Your task to perform on an android device: Clear the cart on ebay. Add "panasonic triple a" to the cart on ebay, then select checkout. Image 0: 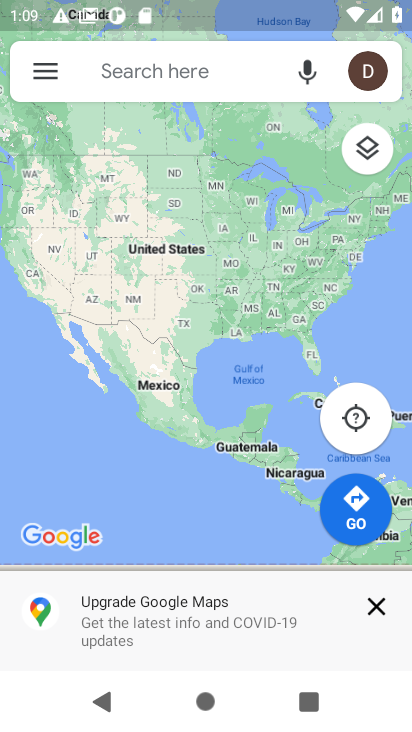
Step 0: press home button
Your task to perform on an android device: Clear the cart on ebay. Add "panasonic triple a" to the cart on ebay, then select checkout. Image 1: 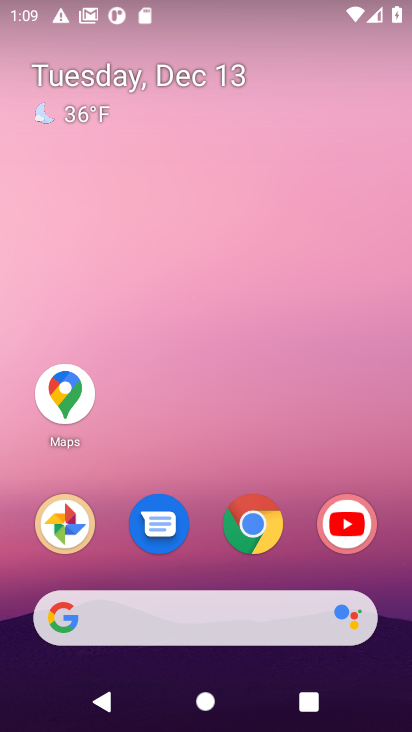
Step 1: click (257, 529)
Your task to perform on an android device: Clear the cart on ebay. Add "panasonic triple a" to the cart on ebay, then select checkout. Image 2: 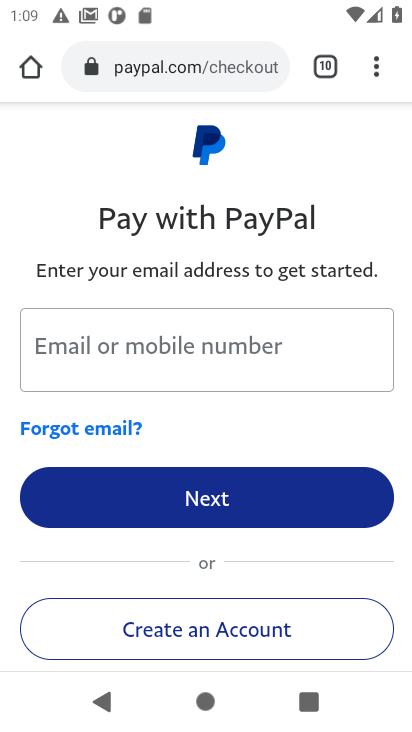
Step 2: click (160, 68)
Your task to perform on an android device: Clear the cart on ebay. Add "panasonic triple a" to the cart on ebay, then select checkout. Image 3: 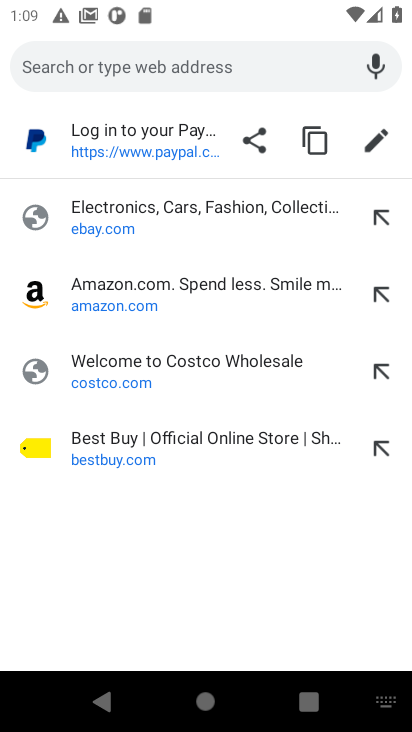
Step 3: click (88, 224)
Your task to perform on an android device: Clear the cart on ebay. Add "panasonic triple a" to the cart on ebay, then select checkout. Image 4: 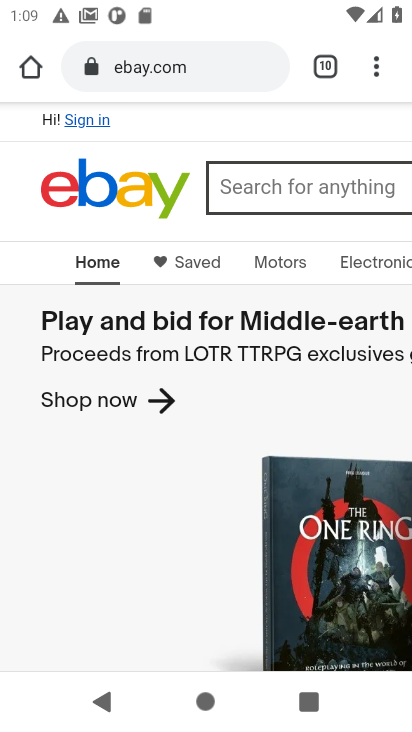
Step 4: drag from (338, 148) to (15, 171)
Your task to perform on an android device: Clear the cart on ebay. Add "panasonic triple a" to the cart on ebay, then select checkout. Image 5: 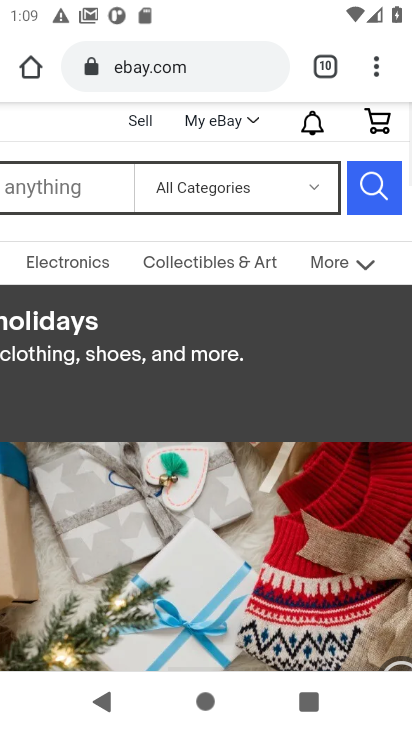
Step 5: click (372, 129)
Your task to perform on an android device: Clear the cart on ebay. Add "panasonic triple a" to the cart on ebay, then select checkout. Image 6: 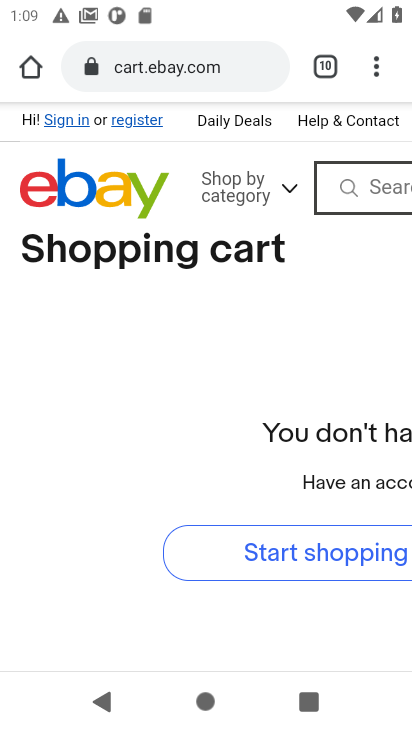
Step 6: click (382, 191)
Your task to perform on an android device: Clear the cart on ebay. Add "panasonic triple a" to the cart on ebay, then select checkout. Image 7: 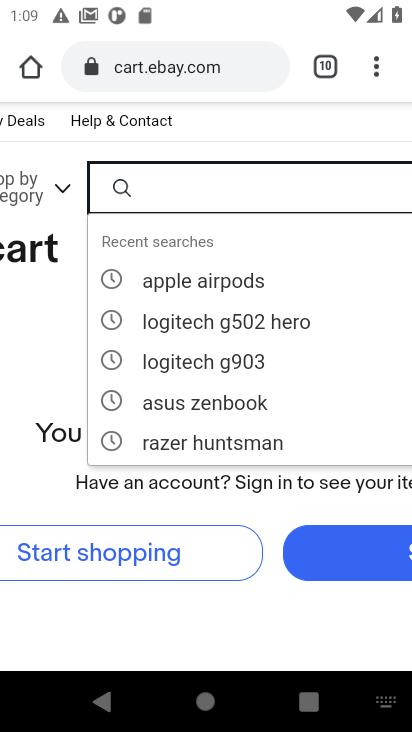
Step 7: type "panasonic triple a"
Your task to perform on an android device: Clear the cart on ebay. Add "panasonic triple a" to the cart on ebay, then select checkout. Image 8: 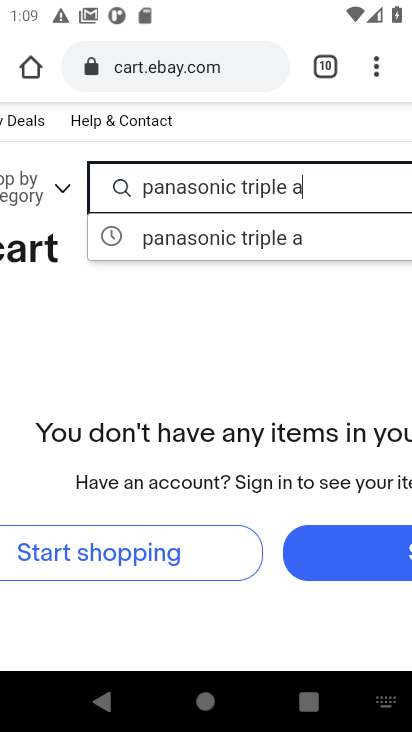
Step 8: click (238, 245)
Your task to perform on an android device: Clear the cart on ebay. Add "panasonic triple a" to the cart on ebay, then select checkout. Image 9: 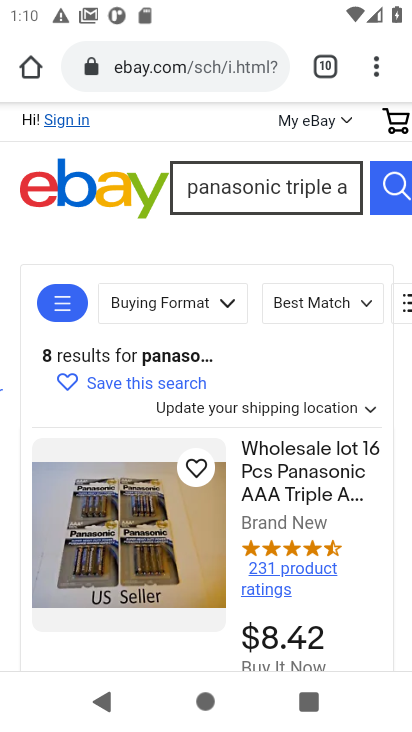
Step 9: click (302, 472)
Your task to perform on an android device: Clear the cart on ebay. Add "panasonic triple a" to the cart on ebay, then select checkout. Image 10: 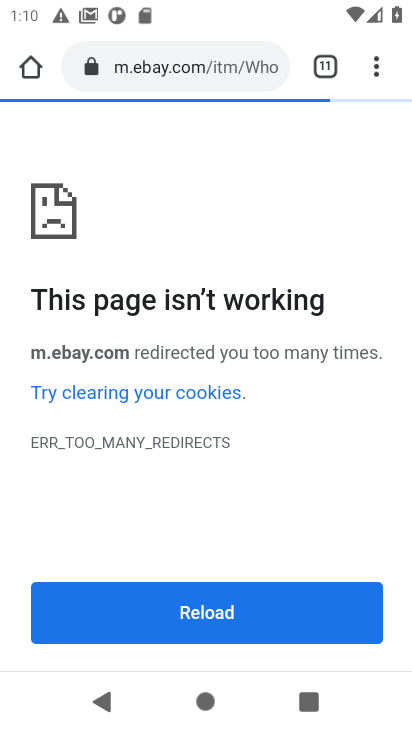
Step 10: task complete